Your task to perform on an android device: Open Maps and search for coffee Image 0: 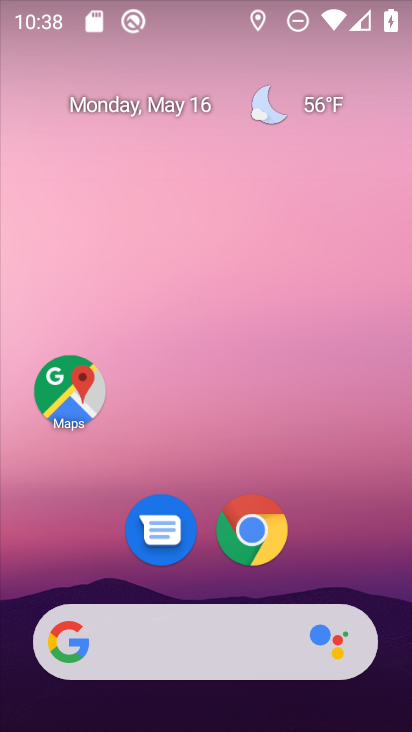
Step 0: click (95, 417)
Your task to perform on an android device: Open Maps and search for coffee Image 1: 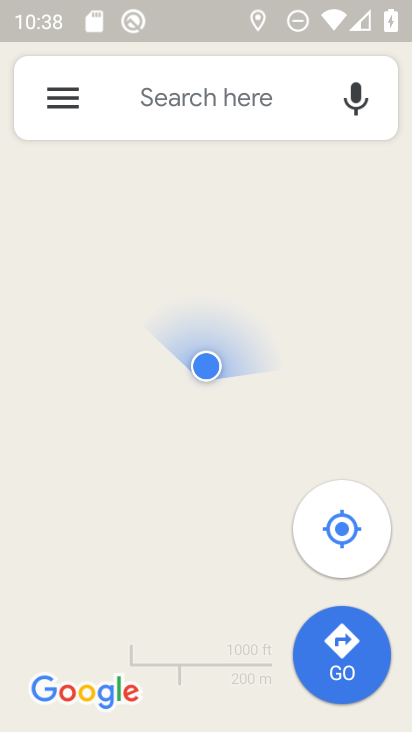
Step 1: click (194, 106)
Your task to perform on an android device: Open Maps and search for coffee Image 2: 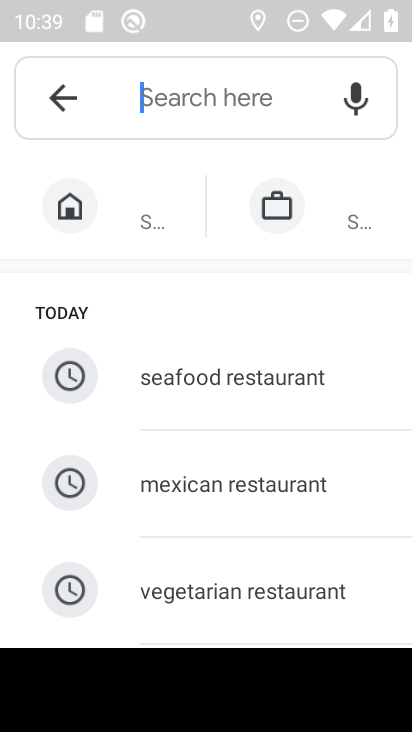
Step 2: type "coffee"
Your task to perform on an android device: Open Maps and search for coffee Image 3: 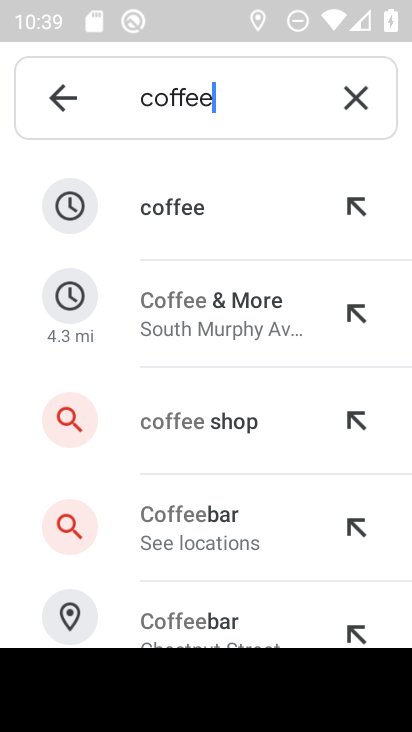
Step 3: click (190, 204)
Your task to perform on an android device: Open Maps and search for coffee Image 4: 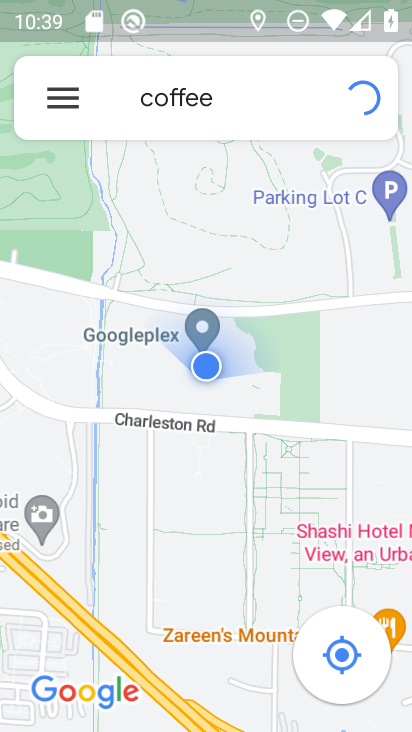
Step 4: click (190, 204)
Your task to perform on an android device: Open Maps and search for coffee Image 5: 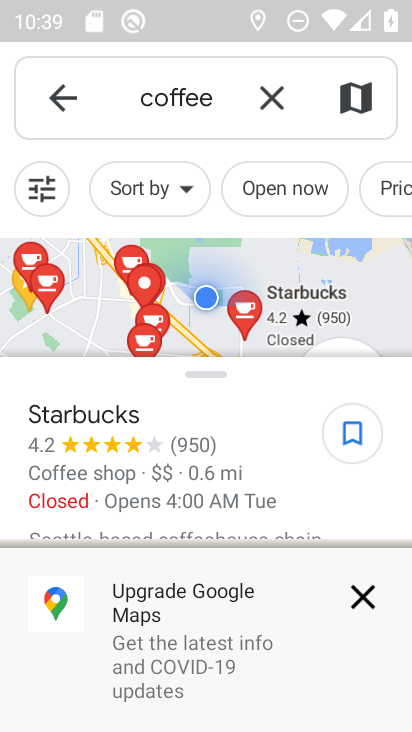
Step 5: task complete